Your task to perform on an android device: Open location settings Image 0: 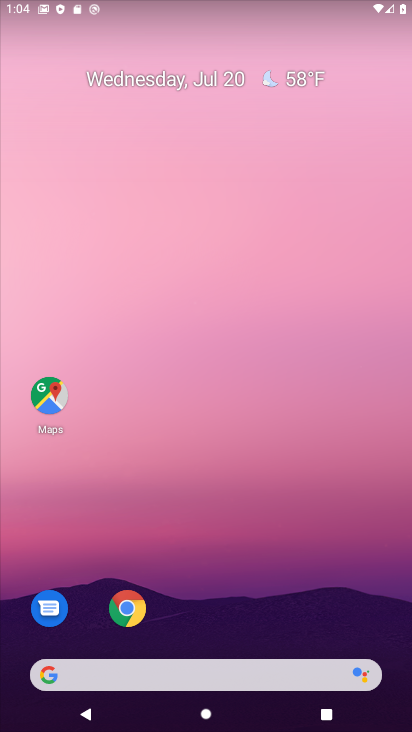
Step 0: drag from (242, 728) to (236, 137)
Your task to perform on an android device: Open location settings Image 1: 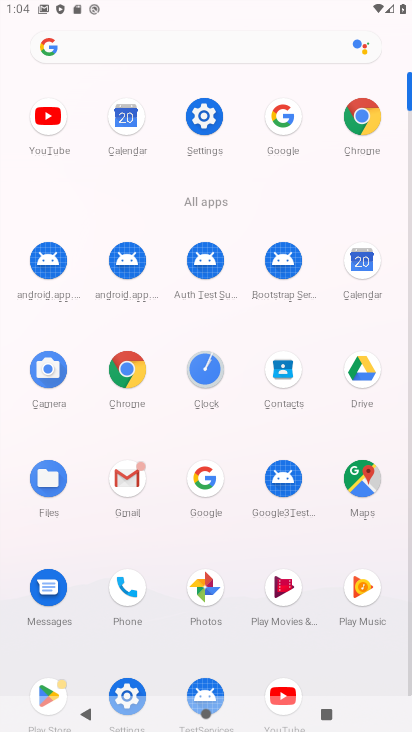
Step 1: click (203, 119)
Your task to perform on an android device: Open location settings Image 2: 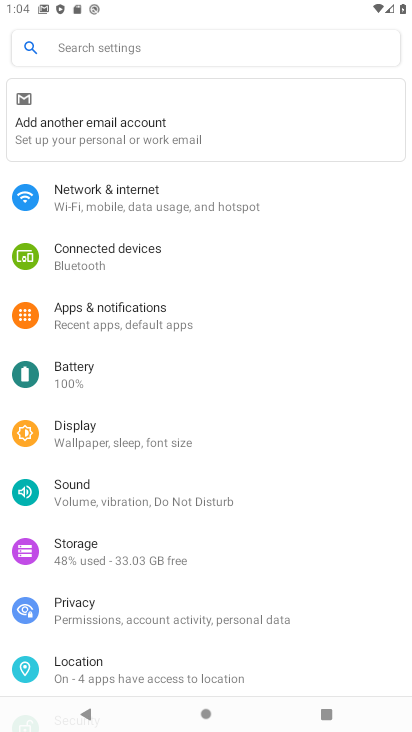
Step 2: click (75, 671)
Your task to perform on an android device: Open location settings Image 3: 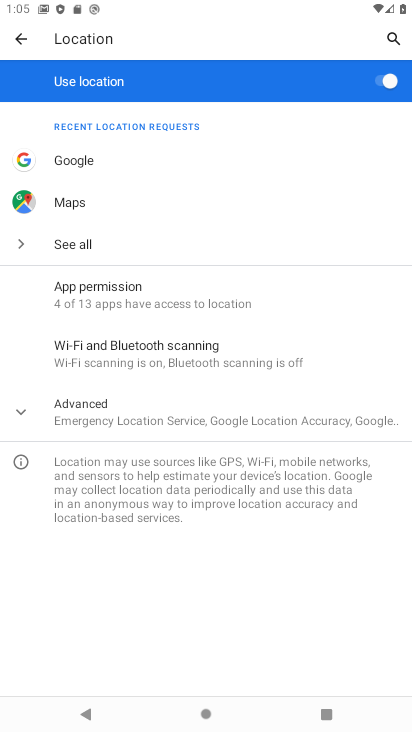
Step 3: task complete